Your task to perform on an android device: Open wifi settings Image 0: 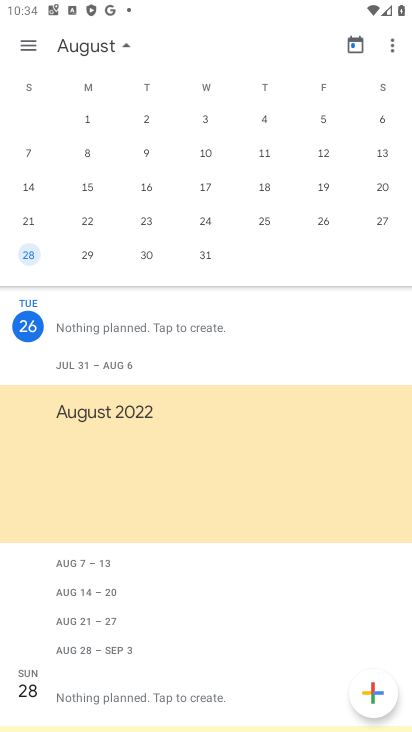
Step 0: press home button
Your task to perform on an android device: Open wifi settings Image 1: 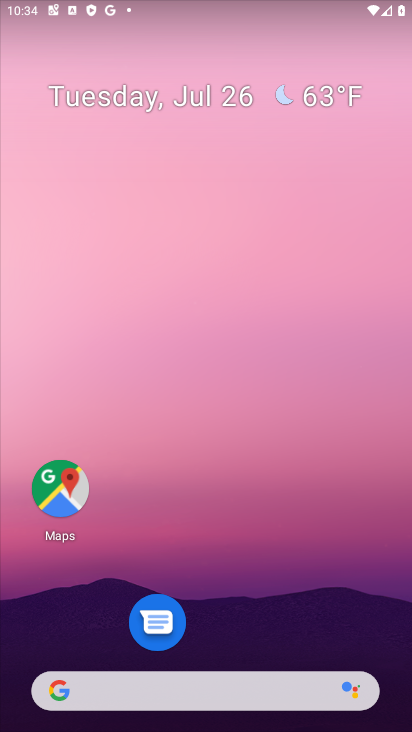
Step 1: drag from (233, 581) to (313, 124)
Your task to perform on an android device: Open wifi settings Image 2: 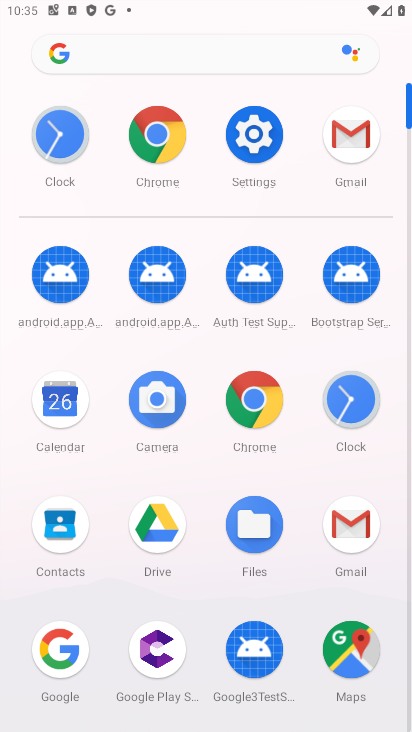
Step 2: click (267, 148)
Your task to perform on an android device: Open wifi settings Image 3: 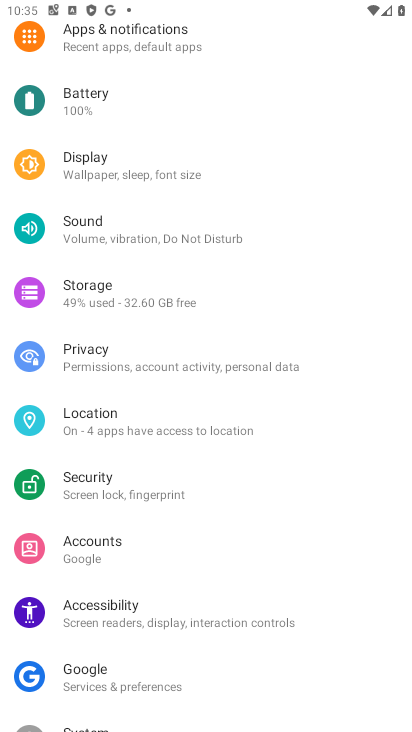
Step 3: drag from (183, 162) to (211, 586)
Your task to perform on an android device: Open wifi settings Image 4: 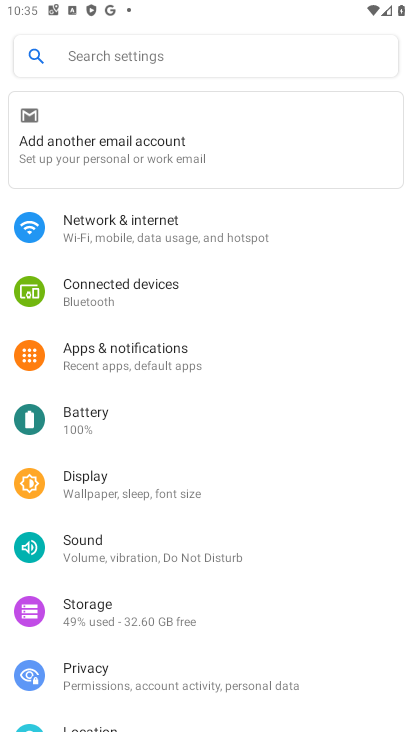
Step 4: click (147, 218)
Your task to perform on an android device: Open wifi settings Image 5: 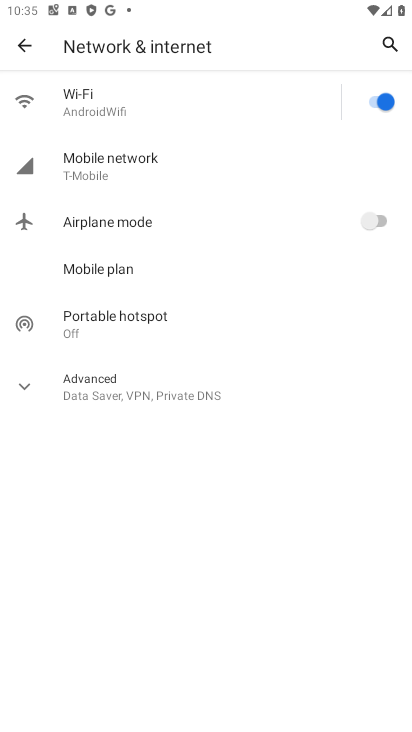
Step 5: click (123, 120)
Your task to perform on an android device: Open wifi settings Image 6: 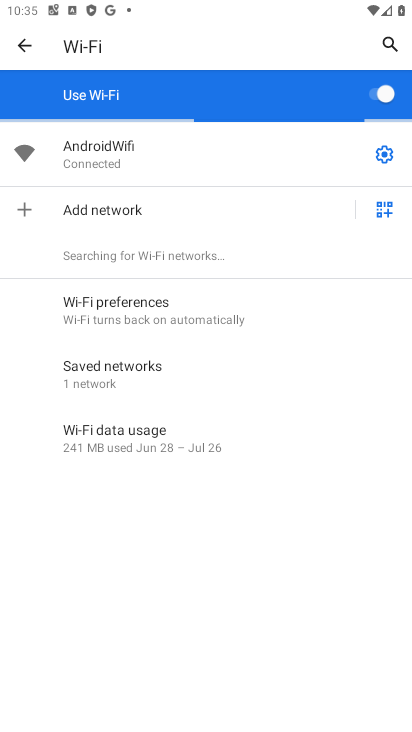
Step 6: task complete